Your task to perform on an android device: check data usage Image 0: 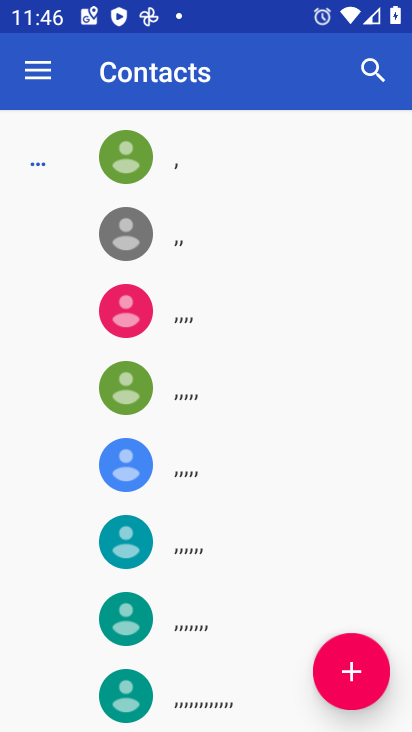
Step 0: press home button
Your task to perform on an android device: check data usage Image 1: 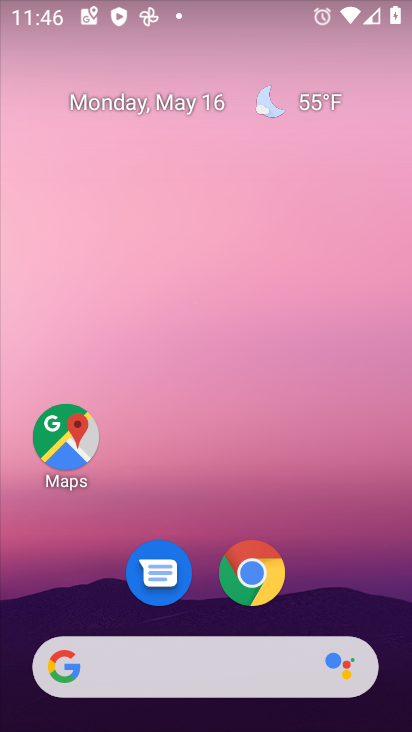
Step 1: drag from (376, 9) to (258, 486)
Your task to perform on an android device: check data usage Image 2: 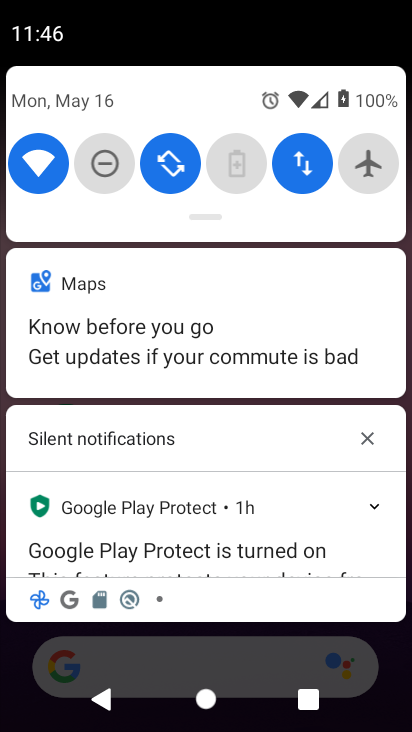
Step 2: click (312, 145)
Your task to perform on an android device: check data usage Image 3: 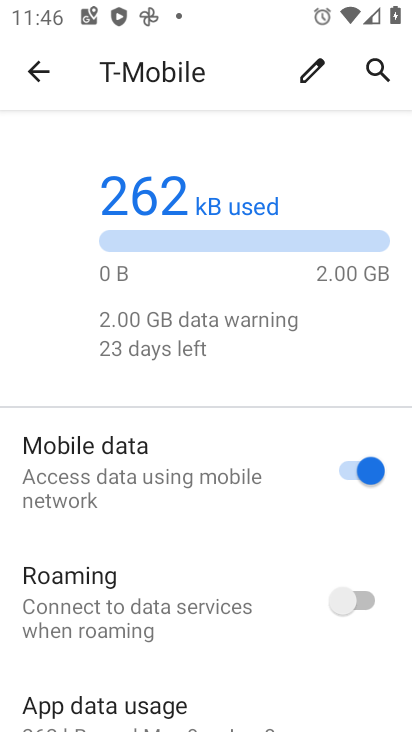
Step 3: task complete